Your task to perform on an android device: toggle notifications settings in the gmail app Image 0: 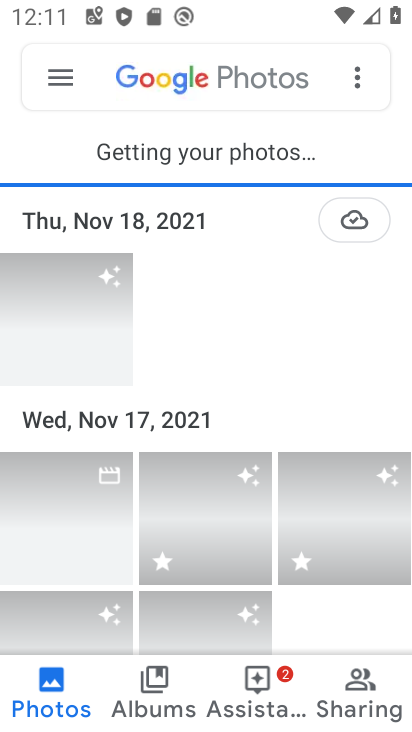
Step 0: press home button
Your task to perform on an android device: toggle notifications settings in the gmail app Image 1: 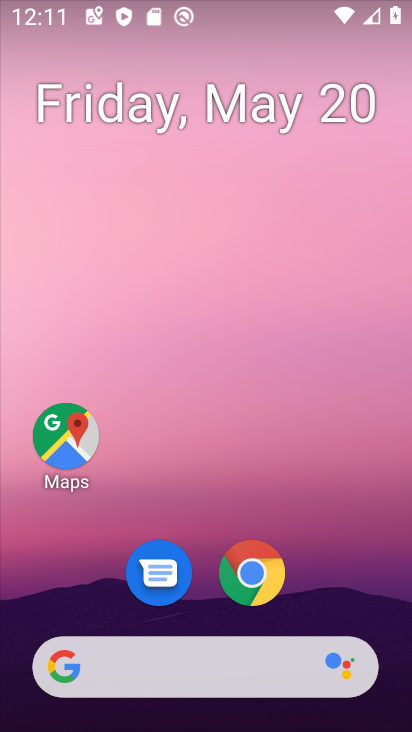
Step 1: drag from (338, 577) to (332, 97)
Your task to perform on an android device: toggle notifications settings in the gmail app Image 2: 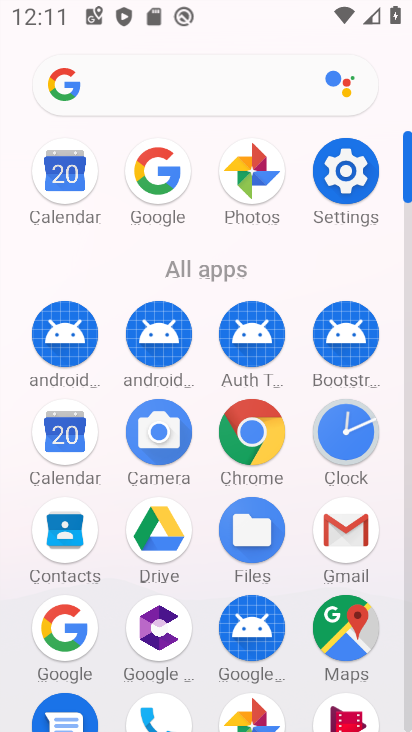
Step 2: click (343, 174)
Your task to perform on an android device: toggle notifications settings in the gmail app Image 3: 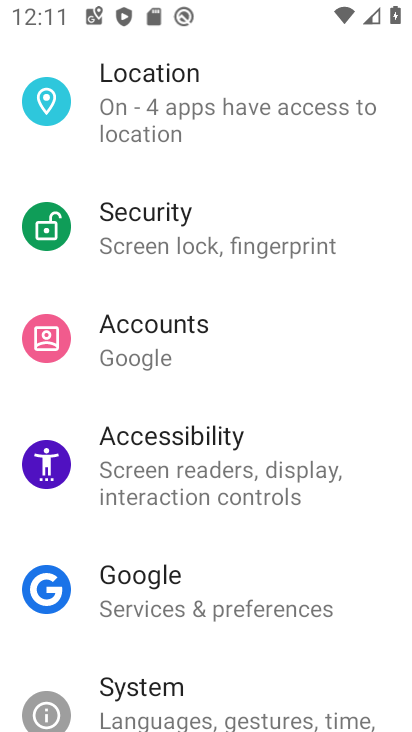
Step 3: drag from (243, 249) to (274, 701)
Your task to perform on an android device: toggle notifications settings in the gmail app Image 4: 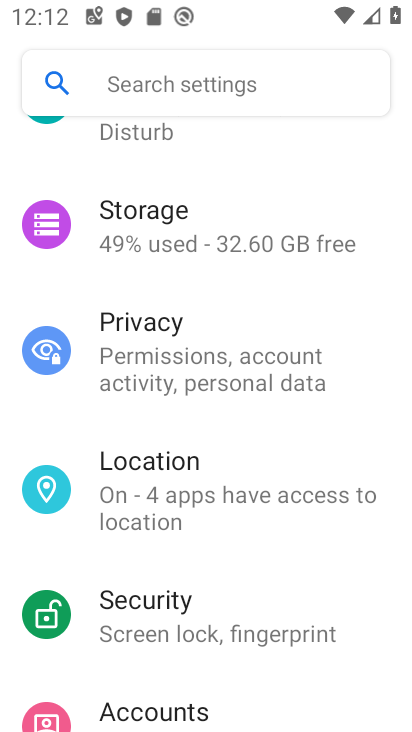
Step 4: drag from (197, 251) to (266, 662)
Your task to perform on an android device: toggle notifications settings in the gmail app Image 5: 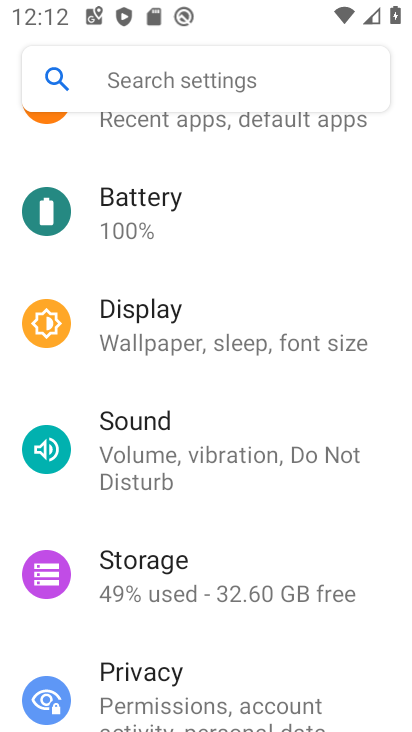
Step 5: drag from (201, 236) to (284, 610)
Your task to perform on an android device: toggle notifications settings in the gmail app Image 6: 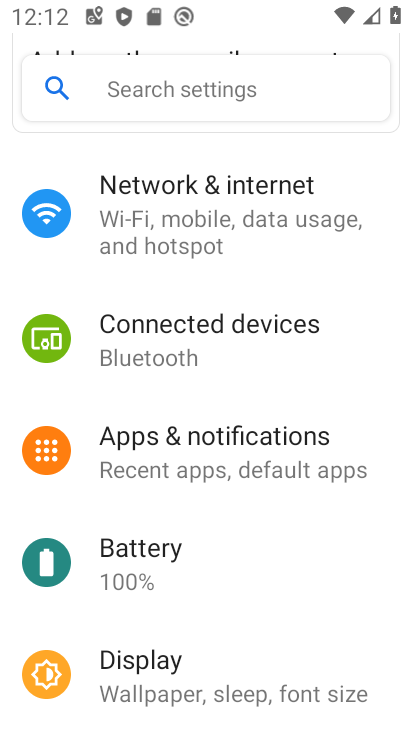
Step 6: click (160, 460)
Your task to perform on an android device: toggle notifications settings in the gmail app Image 7: 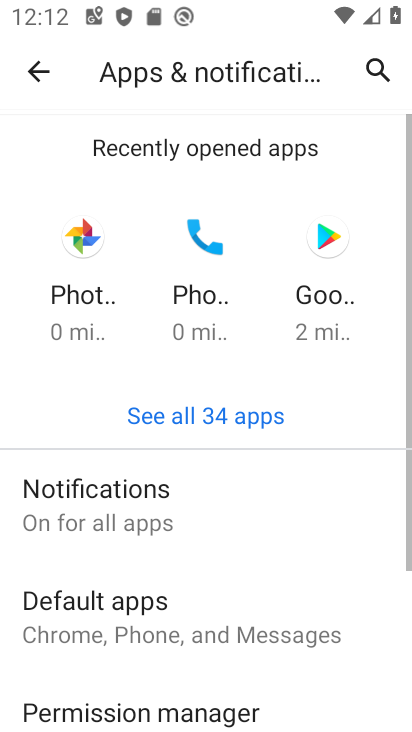
Step 7: click (162, 494)
Your task to perform on an android device: toggle notifications settings in the gmail app Image 8: 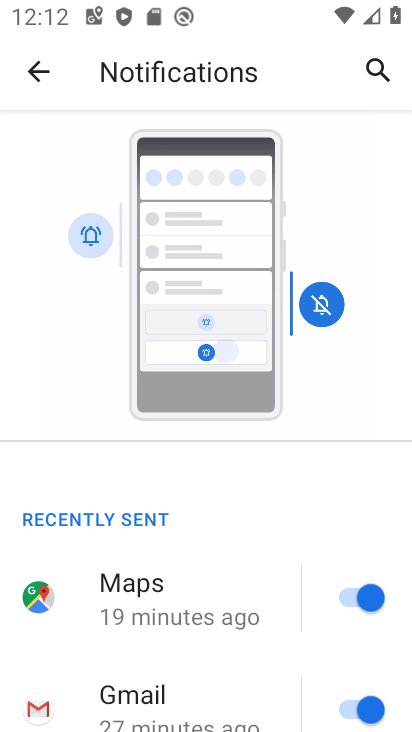
Step 8: drag from (236, 607) to (238, 37)
Your task to perform on an android device: toggle notifications settings in the gmail app Image 9: 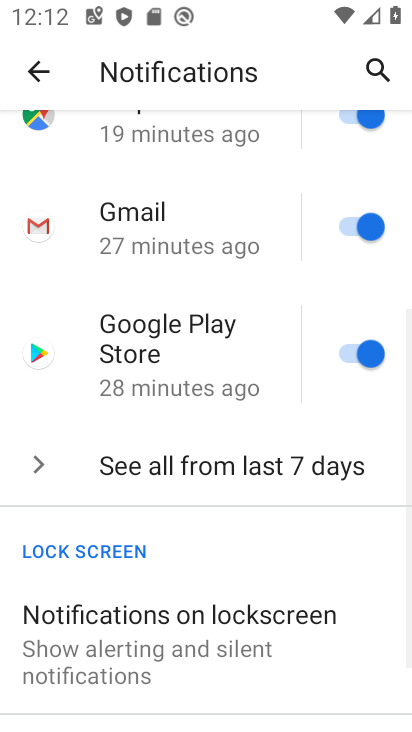
Step 9: drag from (221, 660) to (228, 231)
Your task to perform on an android device: toggle notifications settings in the gmail app Image 10: 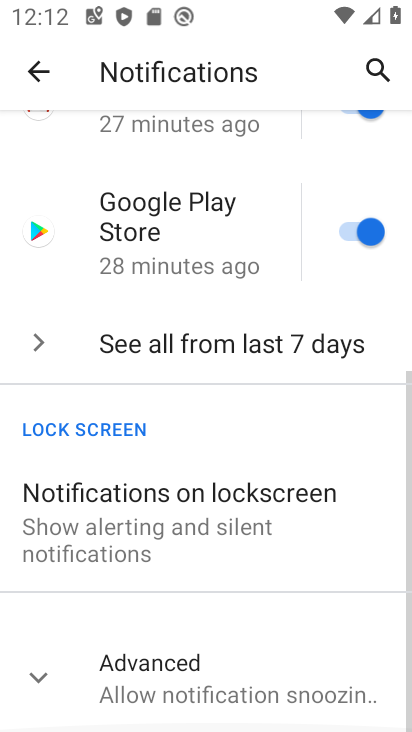
Step 10: click (143, 688)
Your task to perform on an android device: toggle notifications settings in the gmail app Image 11: 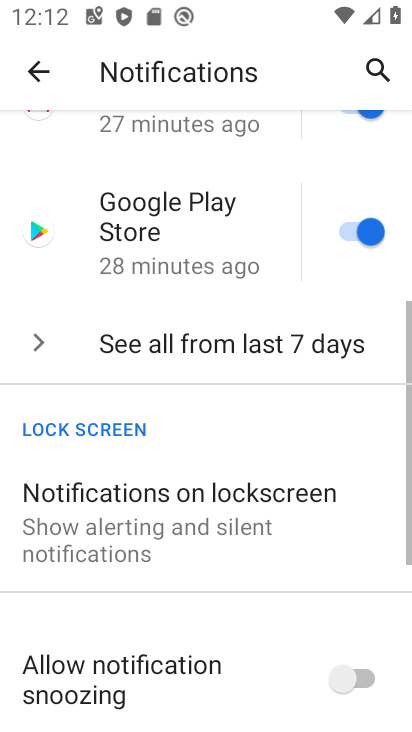
Step 11: drag from (258, 621) to (296, 181)
Your task to perform on an android device: toggle notifications settings in the gmail app Image 12: 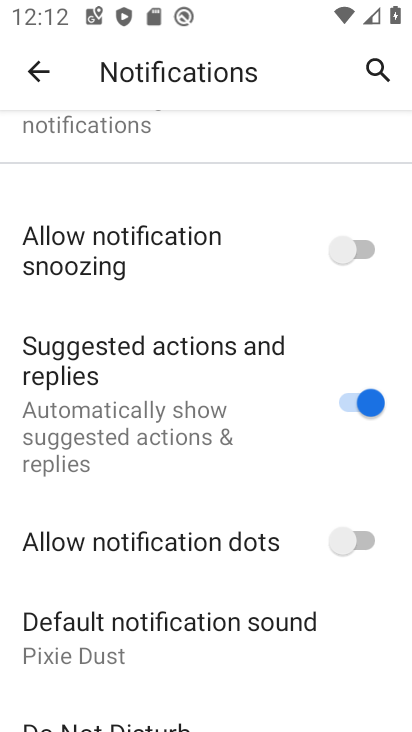
Step 12: click (348, 240)
Your task to perform on an android device: toggle notifications settings in the gmail app Image 13: 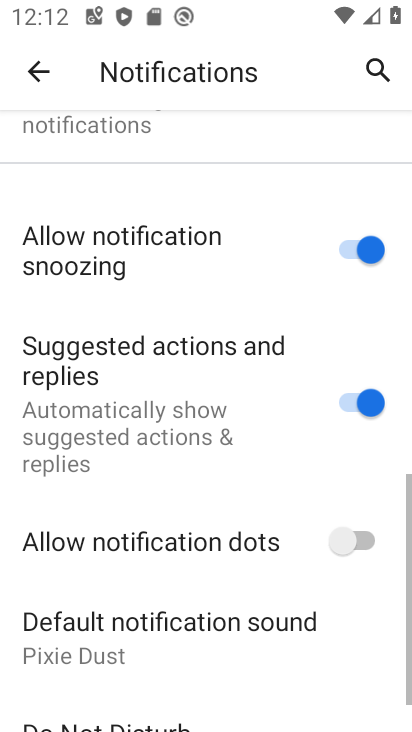
Step 13: click (362, 407)
Your task to perform on an android device: toggle notifications settings in the gmail app Image 14: 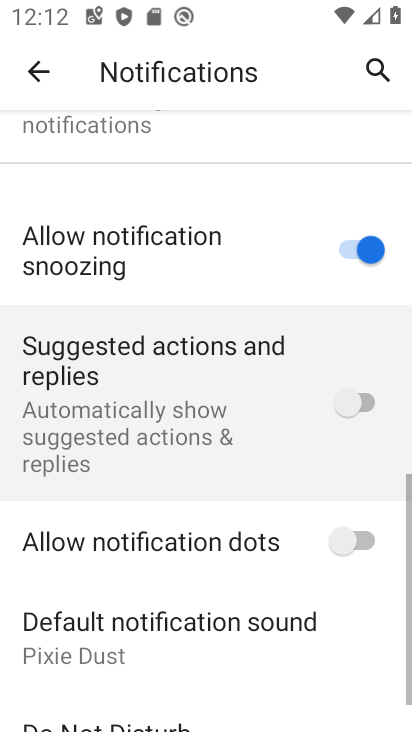
Step 14: click (361, 545)
Your task to perform on an android device: toggle notifications settings in the gmail app Image 15: 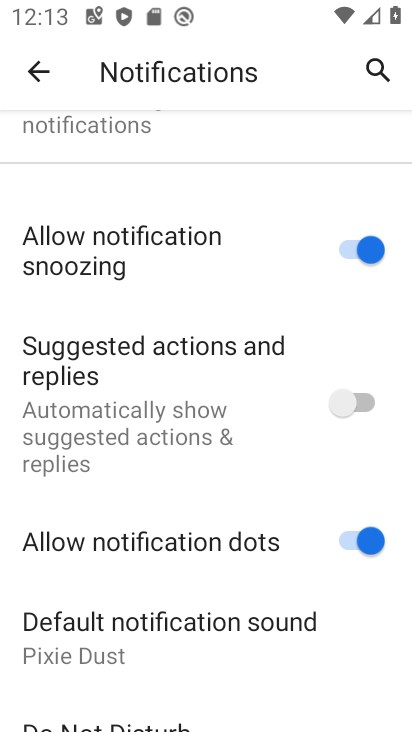
Step 15: task complete